Your task to perform on an android device: Toggle the flashlight Image 0: 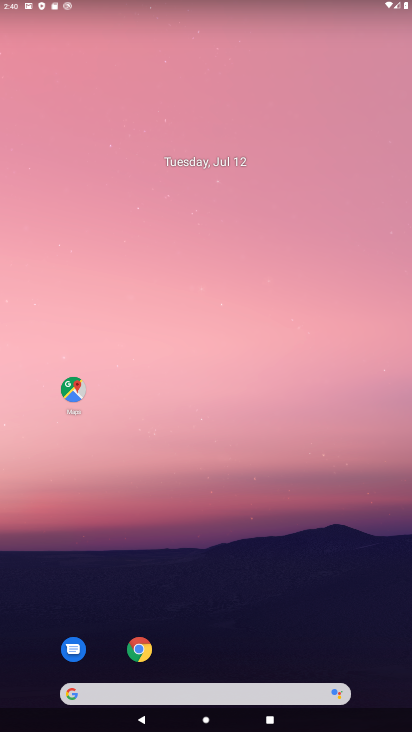
Step 0: drag from (223, 639) to (185, 118)
Your task to perform on an android device: Toggle the flashlight Image 1: 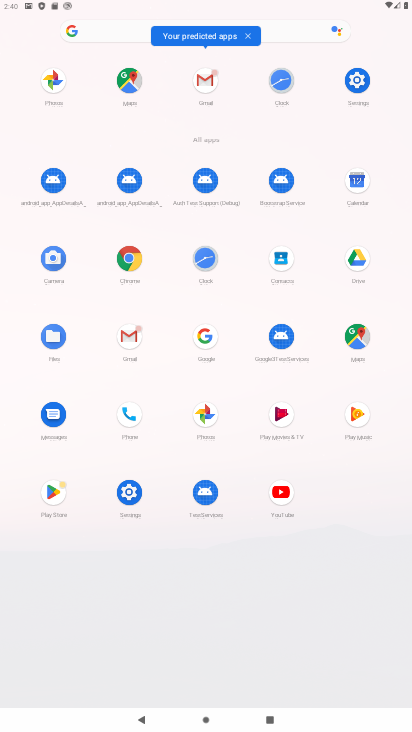
Step 1: task complete